Your task to perform on an android device: turn notification dots on Image 0: 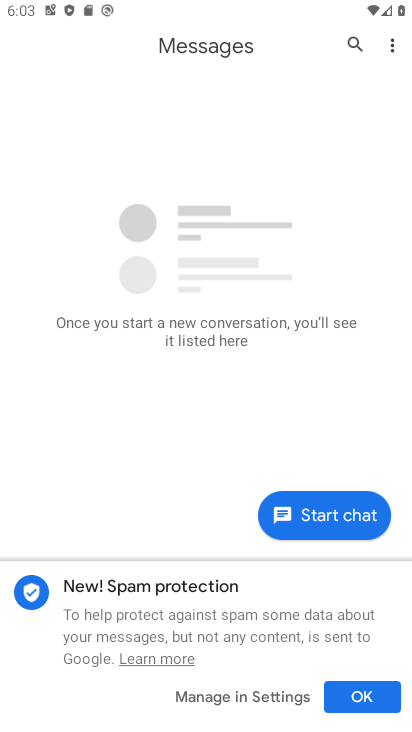
Step 0: press home button
Your task to perform on an android device: turn notification dots on Image 1: 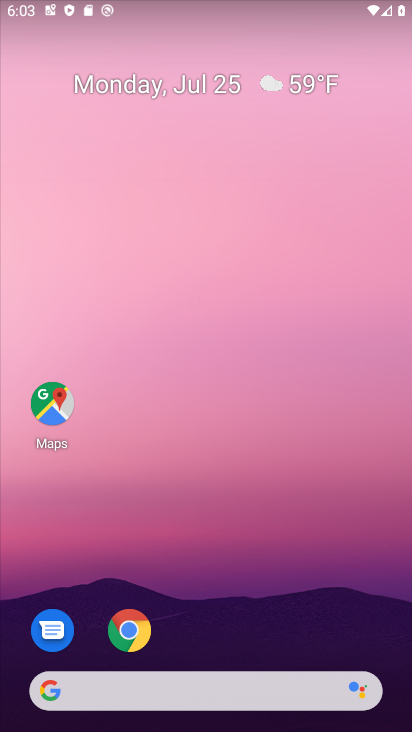
Step 1: drag from (195, 611) to (178, 26)
Your task to perform on an android device: turn notification dots on Image 2: 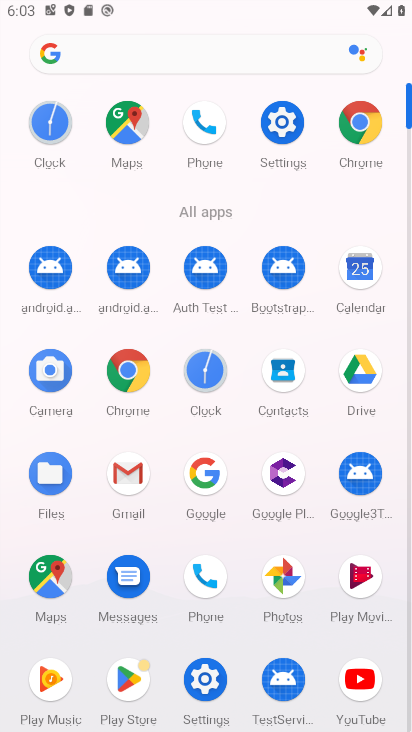
Step 2: click (282, 118)
Your task to perform on an android device: turn notification dots on Image 3: 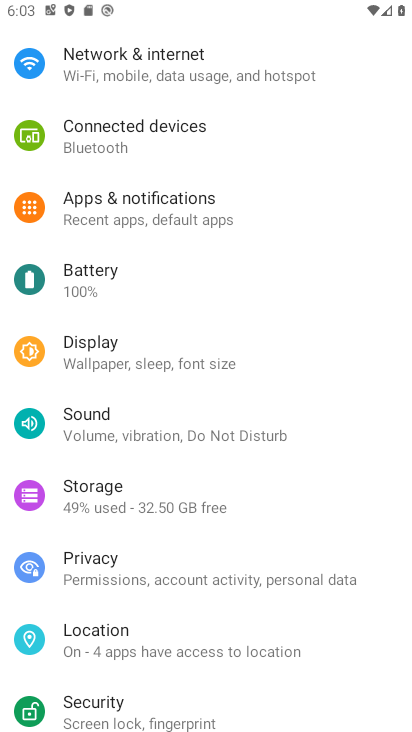
Step 3: click (155, 213)
Your task to perform on an android device: turn notification dots on Image 4: 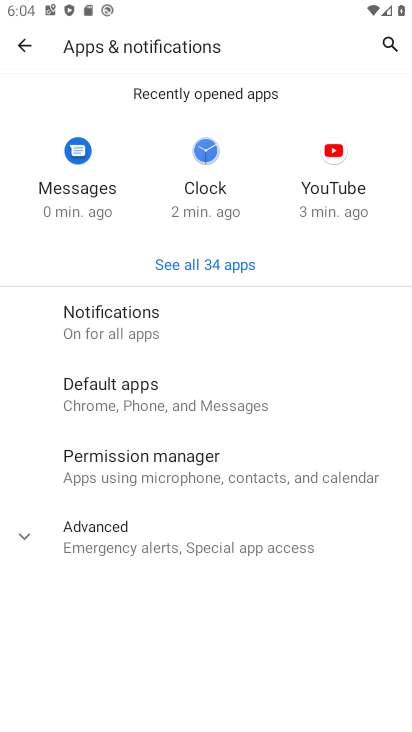
Step 4: press home button
Your task to perform on an android device: turn notification dots on Image 5: 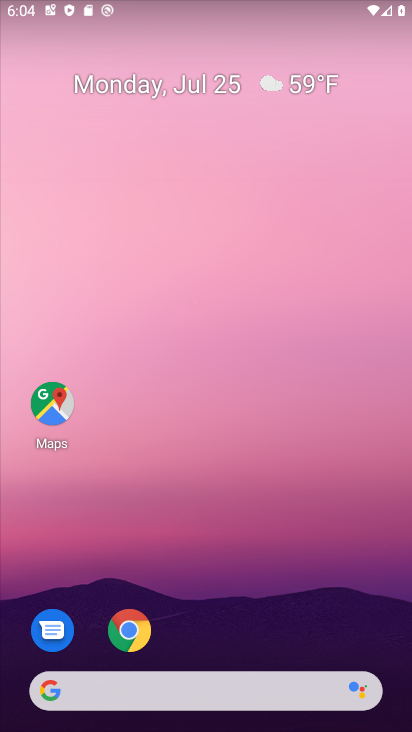
Step 5: drag from (219, 215) to (221, 4)
Your task to perform on an android device: turn notification dots on Image 6: 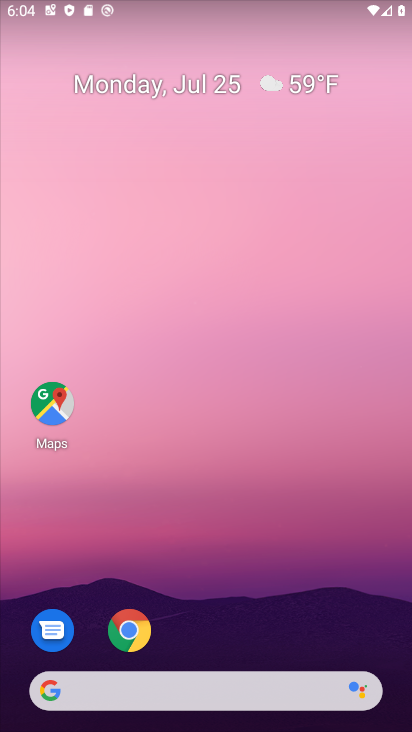
Step 6: drag from (198, 629) to (223, 69)
Your task to perform on an android device: turn notification dots on Image 7: 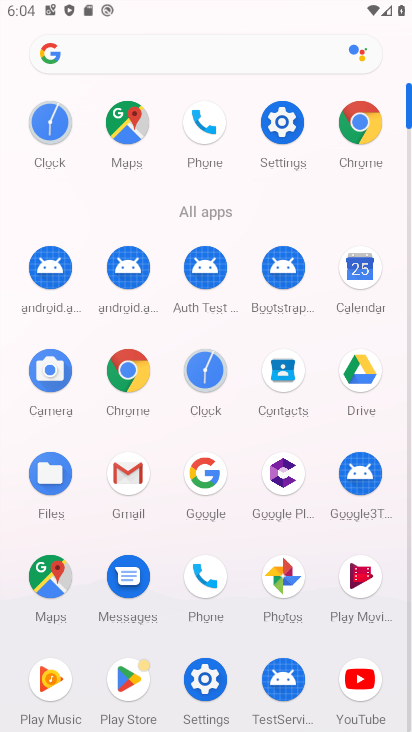
Step 7: click (283, 128)
Your task to perform on an android device: turn notification dots on Image 8: 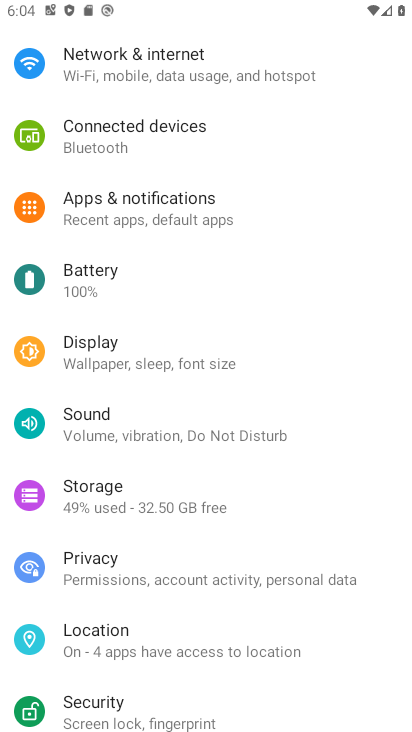
Step 8: click (127, 221)
Your task to perform on an android device: turn notification dots on Image 9: 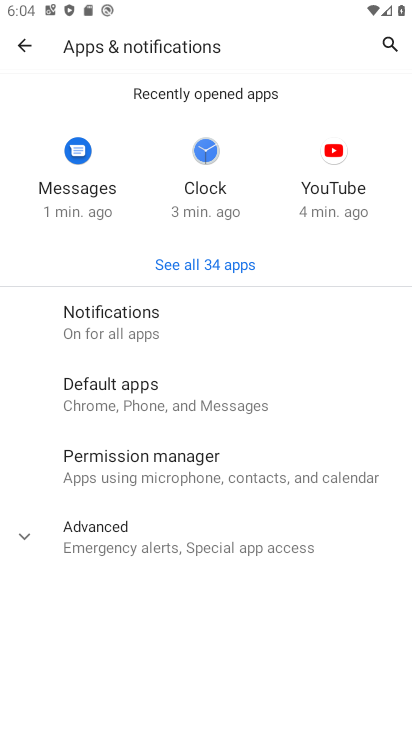
Step 9: click (131, 325)
Your task to perform on an android device: turn notification dots on Image 10: 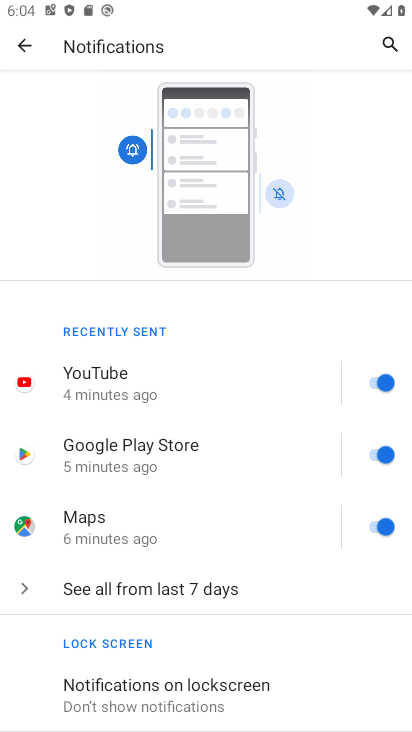
Step 10: drag from (192, 389) to (210, 279)
Your task to perform on an android device: turn notification dots on Image 11: 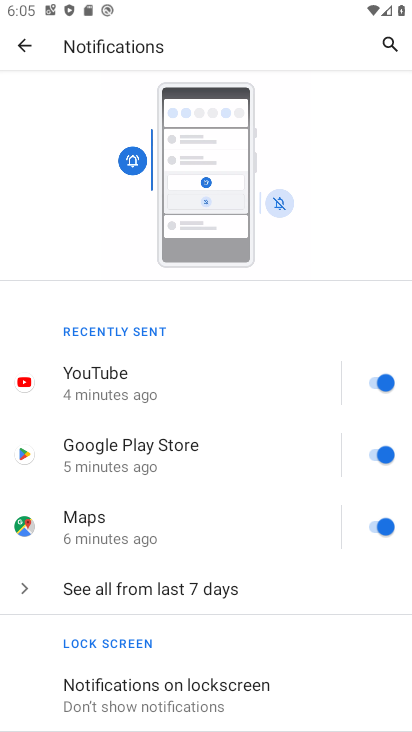
Step 11: drag from (229, 508) to (285, 194)
Your task to perform on an android device: turn notification dots on Image 12: 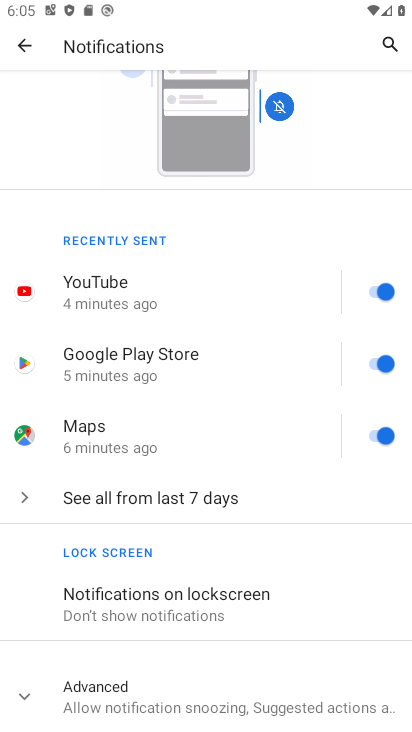
Step 12: drag from (280, 568) to (290, 346)
Your task to perform on an android device: turn notification dots on Image 13: 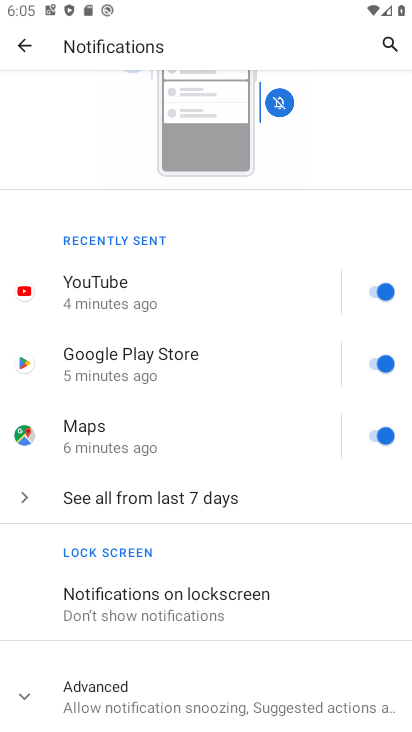
Step 13: click (111, 696)
Your task to perform on an android device: turn notification dots on Image 14: 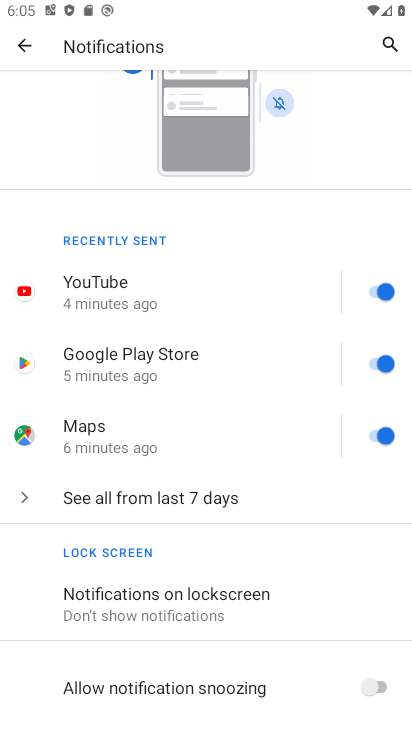
Step 14: task complete